Your task to perform on an android device: turn on data saver in the chrome app Image 0: 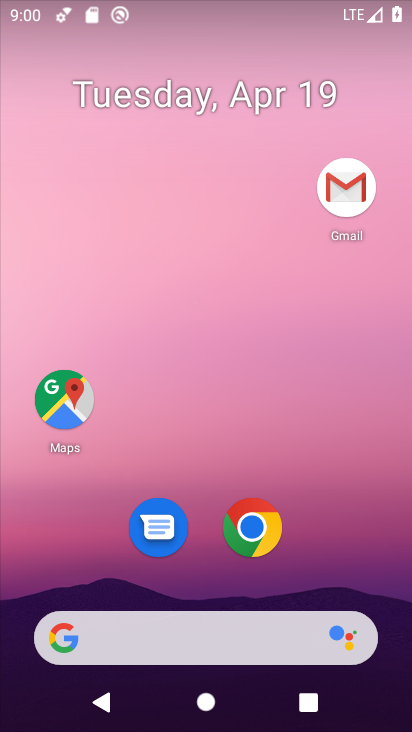
Step 0: drag from (339, 522) to (341, 93)
Your task to perform on an android device: turn on data saver in the chrome app Image 1: 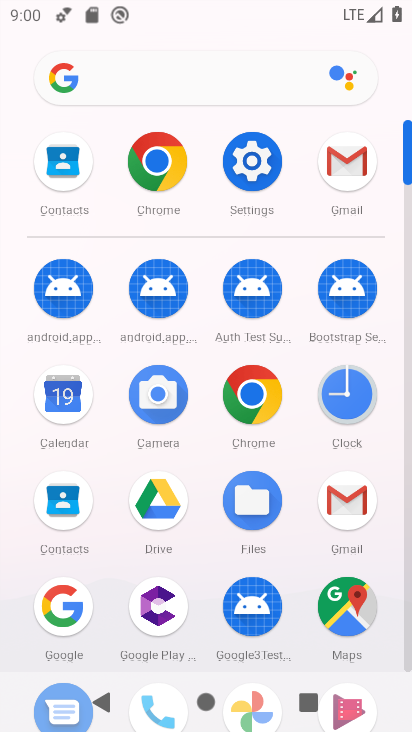
Step 1: click (276, 402)
Your task to perform on an android device: turn on data saver in the chrome app Image 2: 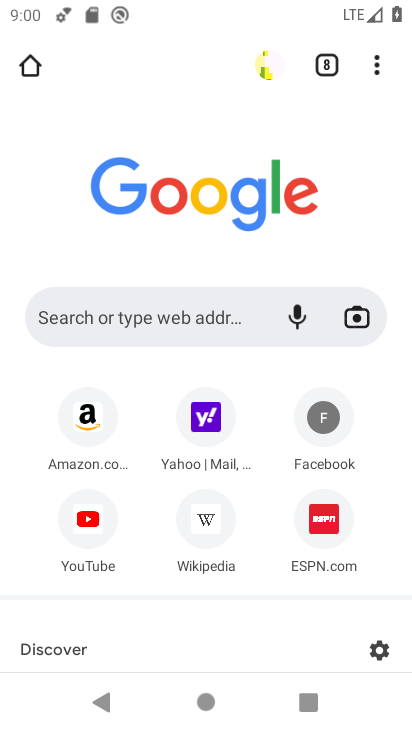
Step 2: click (384, 86)
Your task to perform on an android device: turn on data saver in the chrome app Image 3: 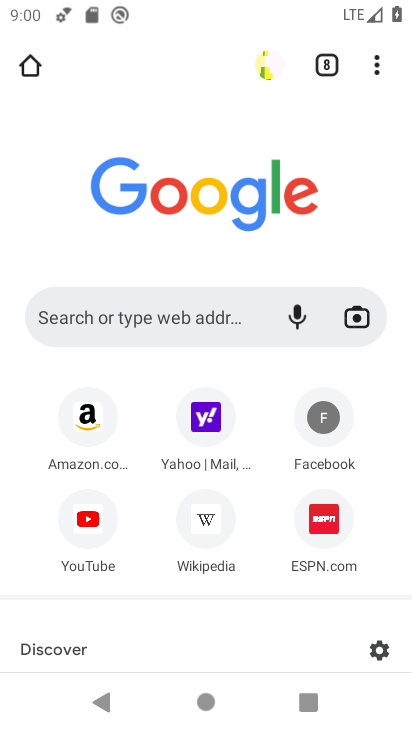
Step 3: click (408, 78)
Your task to perform on an android device: turn on data saver in the chrome app Image 4: 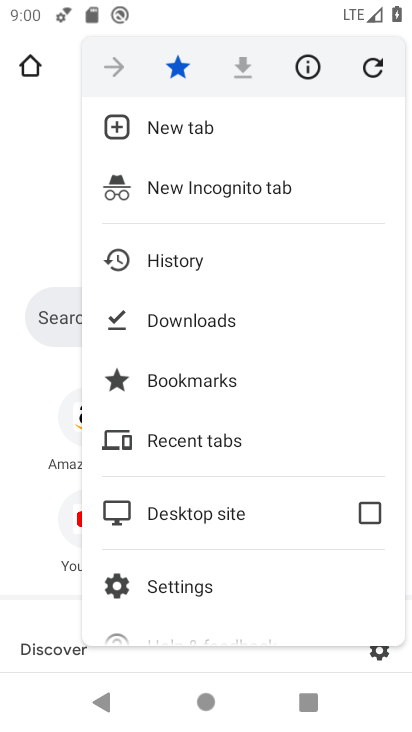
Step 4: drag from (254, 571) to (321, 200)
Your task to perform on an android device: turn on data saver in the chrome app Image 5: 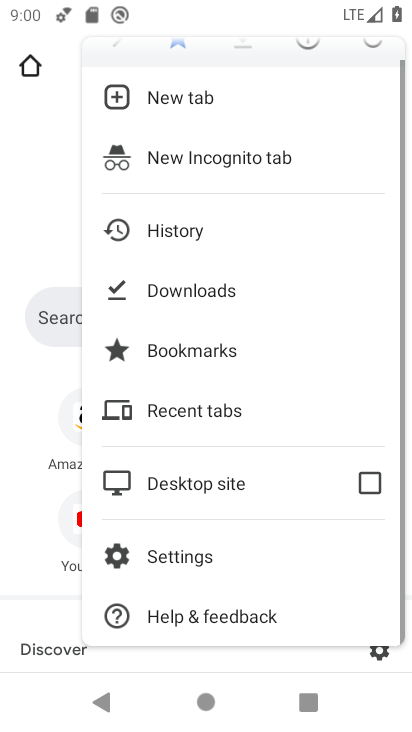
Step 5: click (206, 564)
Your task to perform on an android device: turn on data saver in the chrome app Image 6: 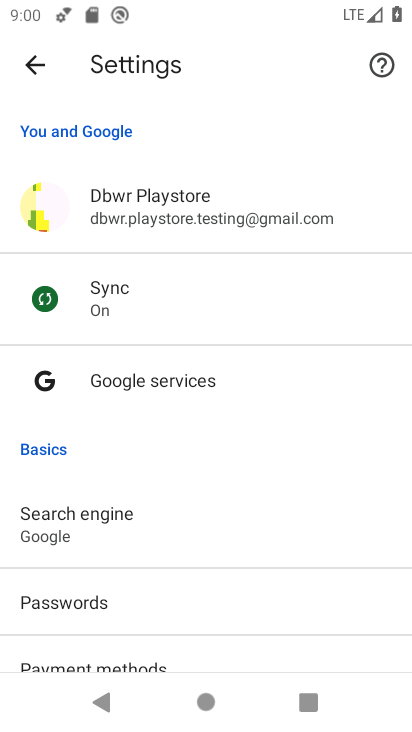
Step 6: task complete